Your task to perform on an android device: Check the weather Image 0: 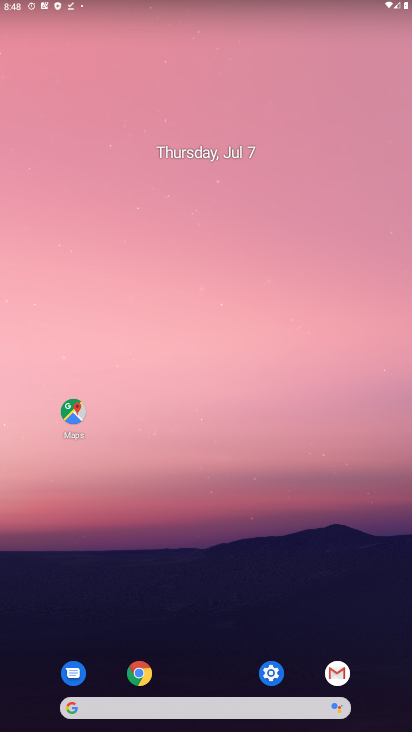
Step 0: click (214, 707)
Your task to perform on an android device: Check the weather Image 1: 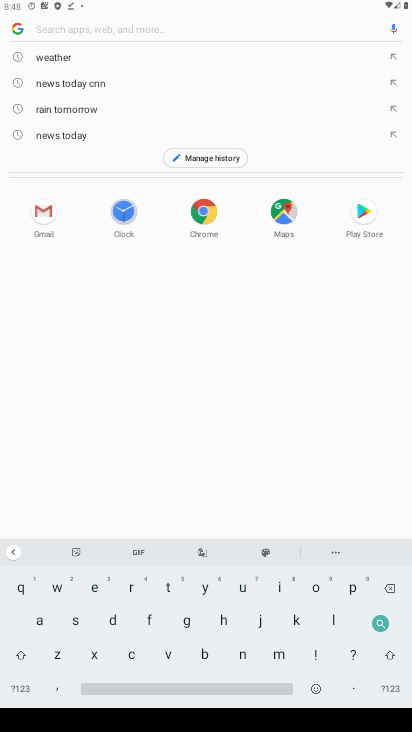
Step 1: click (122, 67)
Your task to perform on an android device: Check the weather Image 2: 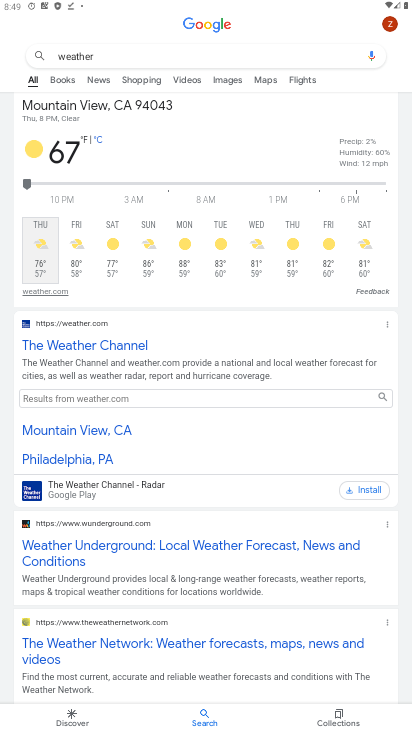
Step 2: task complete